Your task to perform on an android device: What's the weather going to be tomorrow? Image 0: 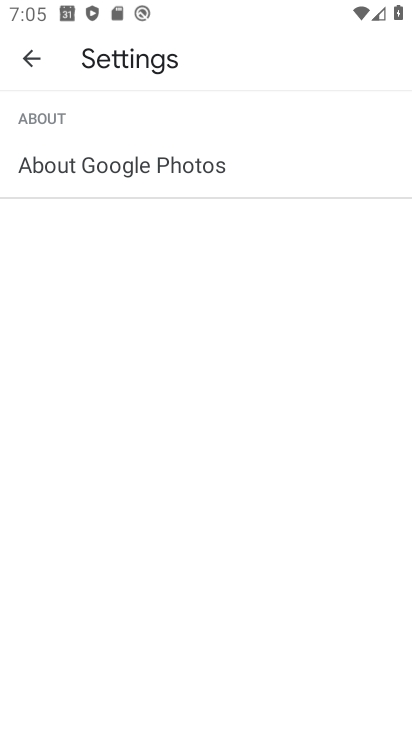
Step 0: press home button
Your task to perform on an android device: What's the weather going to be tomorrow? Image 1: 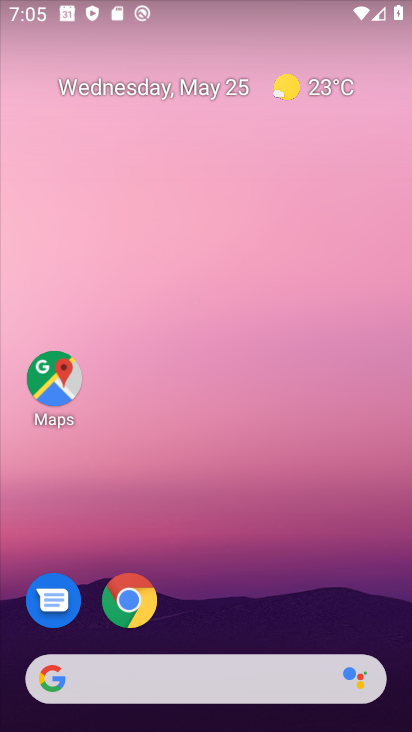
Step 1: drag from (253, 549) to (237, 194)
Your task to perform on an android device: What's the weather going to be tomorrow? Image 2: 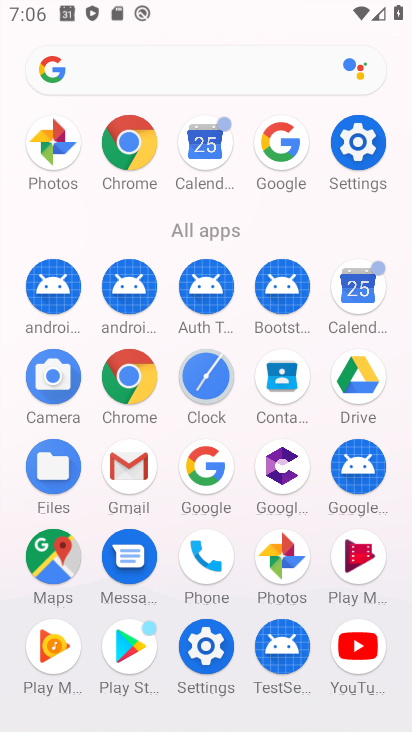
Step 2: click (279, 144)
Your task to perform on an android device: What's the weather going to be tomorrow? Image 3: 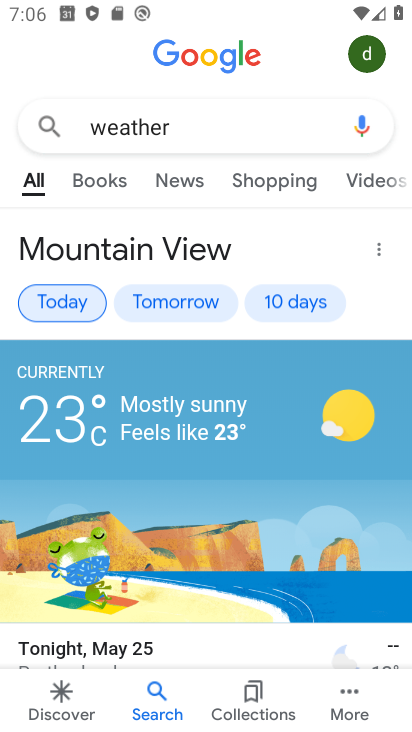
Step 3: click (185, 300)
Your task to perform on an android device: What's the weather going to be tomorrow? Image 4: 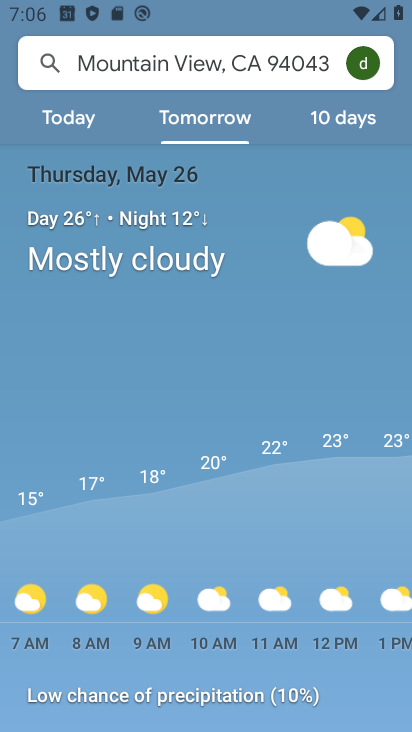
Step 4: task complete